Your task to perform on an android device: Open sound settings Image 0: 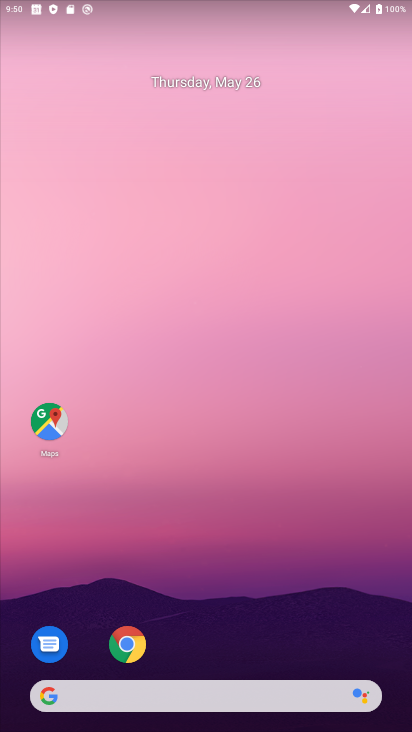
Step 0: drag from (241, 365) to (172, 170)
Your task to perform on an android device: Open sound settings Image 1: 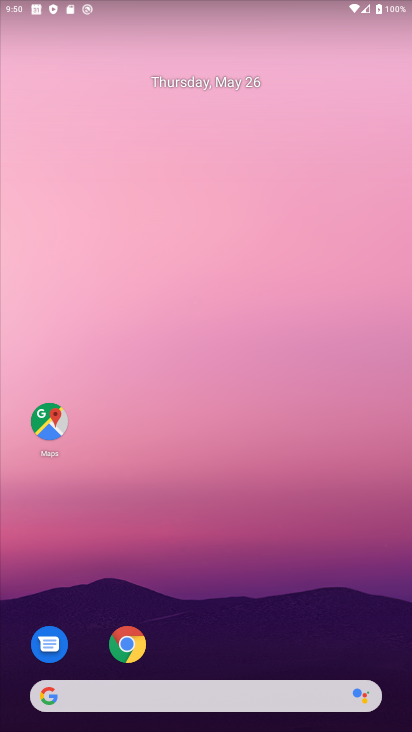
Step 1: drag from (268, 692) to (93, 159)
Your task to perform on an android device: Open sound settings Image 2: 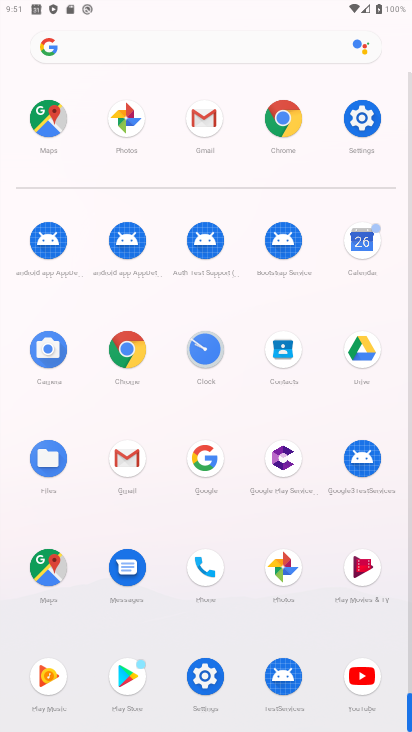
Step 2: click (348, 125)
Your task to perform on an android device: Open sound settings Image 3: 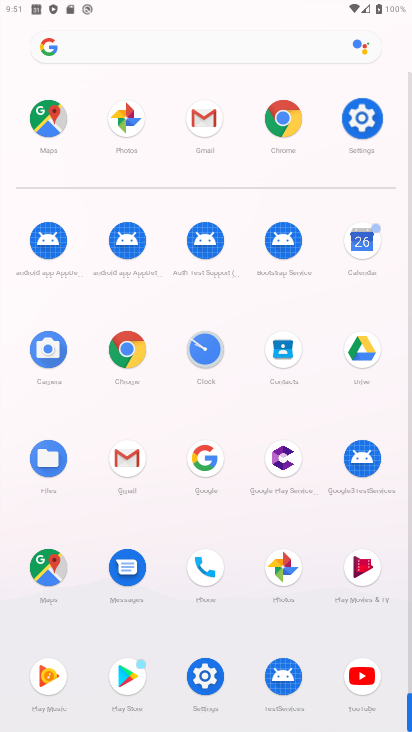
Step 3: click (358, 123)
Your task to perform on an android device: Open sound settings Image 4: 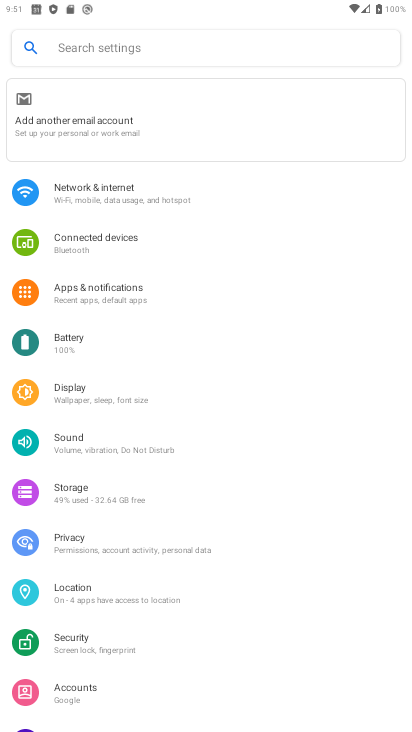
Step 4: click (76, 460)
Your task to perform on an android device: Open sound settings Image 5: 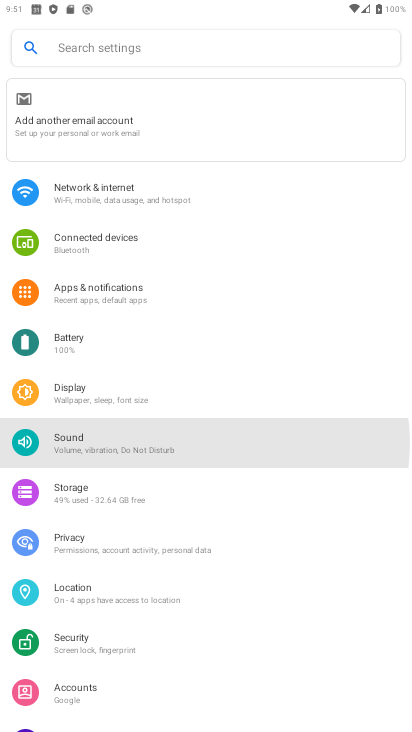
Step 5: click (83, 458)
Your task to perform on an android device: Open sound settings Image 6: 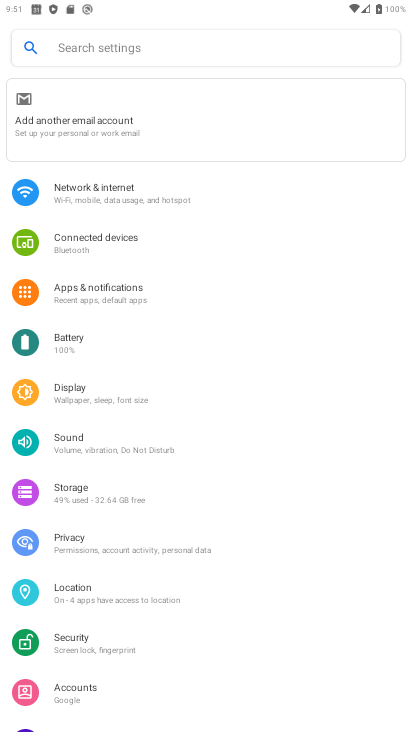
Step 6: click (87, 458)
Your task to perform on an android device: Open sound settings Image 7: 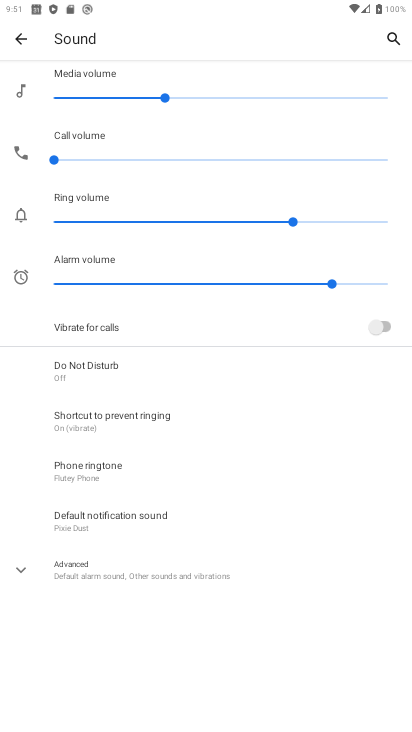
Step 7: task complete